Your task to perform on an android device: Open ESPN.com Image 0: 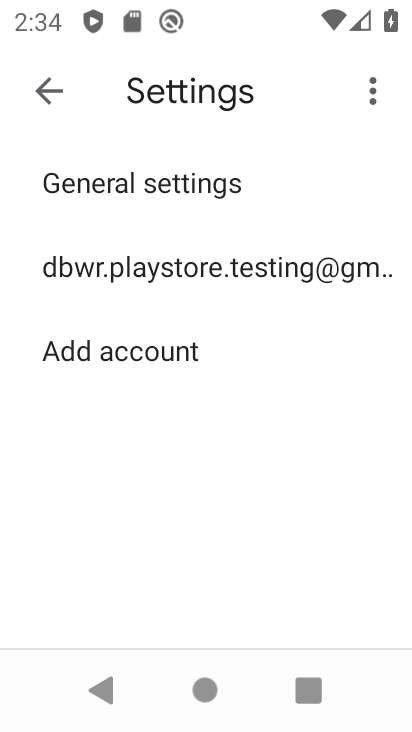
Step 0: press home button
Your task to perform on an android device: Open ESPN.com Image 1: 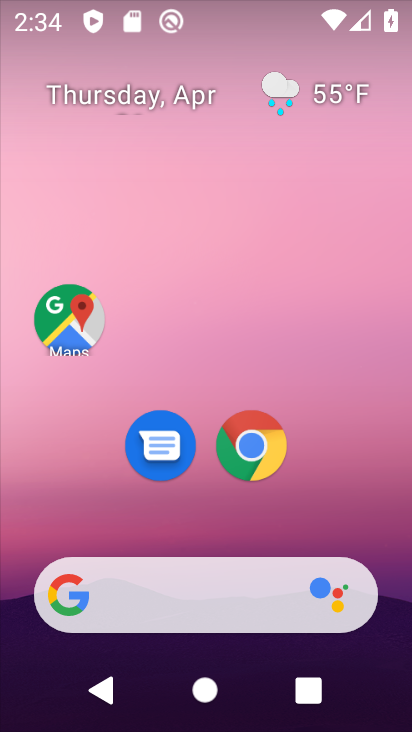
Step 1: click (246, 440)
Your task to perform on an android device: Open ESPN.com Image 2: 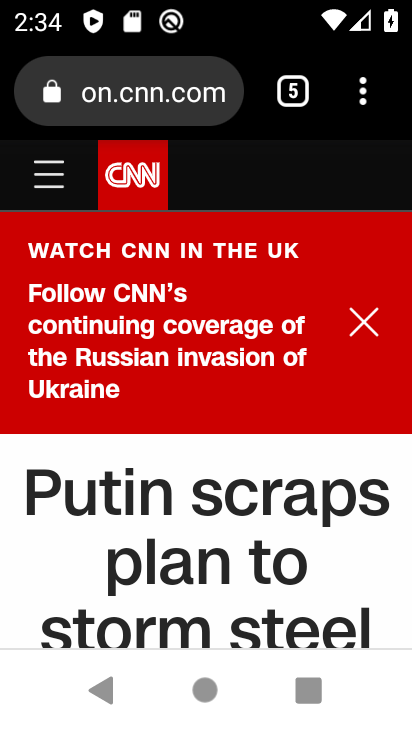
Step 2: drag from (359, 93) to (137, 290)
Your task to perform on an android device: Open ESPN.com Image 3: 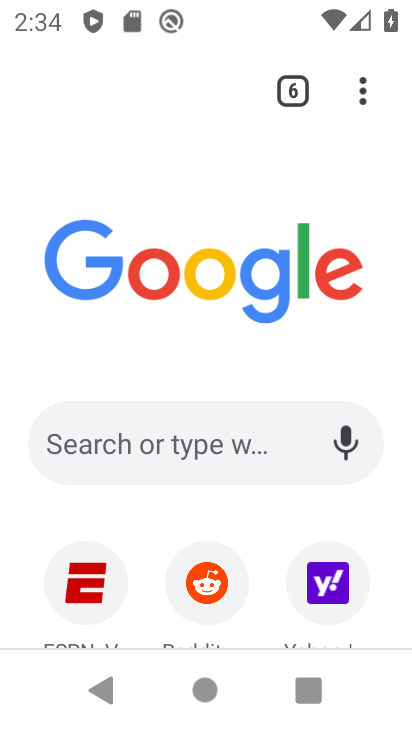
Step 3: click (184, 453)
Your task to perform on an android device: Open ESPN.com Image 4: 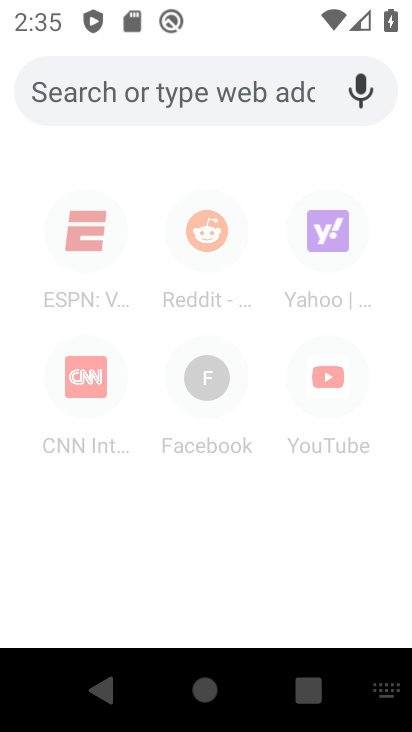
Step 4: type "ESPN.com"
Your task to perform on an android device: Open ESPN.com Image 5: 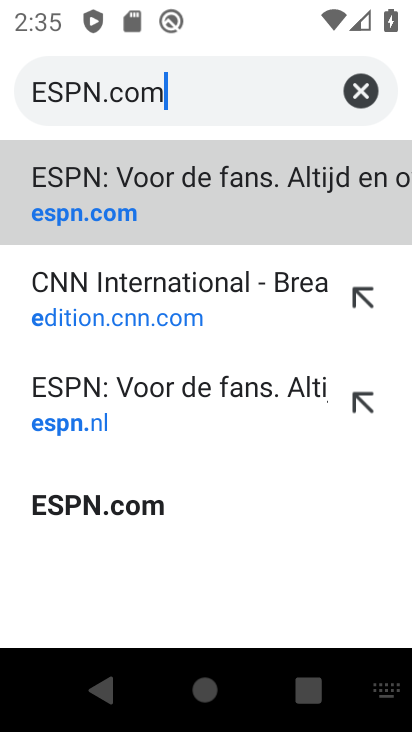
Step 5: type ""
Your task to perform on an android device: Open ESPN.com Image 6: 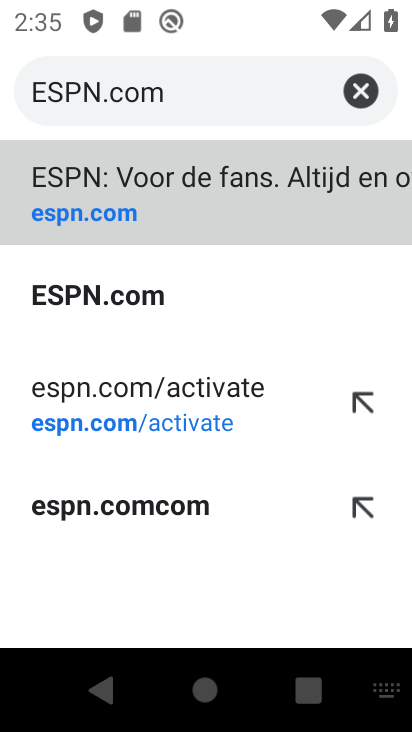
Step 6: click (116, 185)
Your task to perform on an android device: Open ESPN.com Image 7: 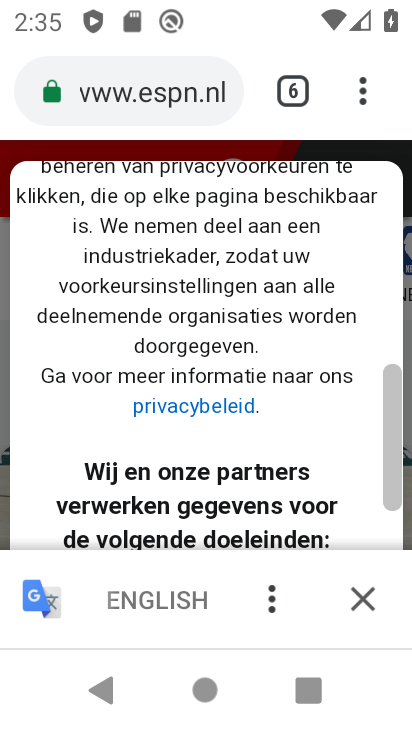
Step 7: drag from (269, 477) to (239, 168)
Your task to perform on an android device: Open ESPN.com Image 8: 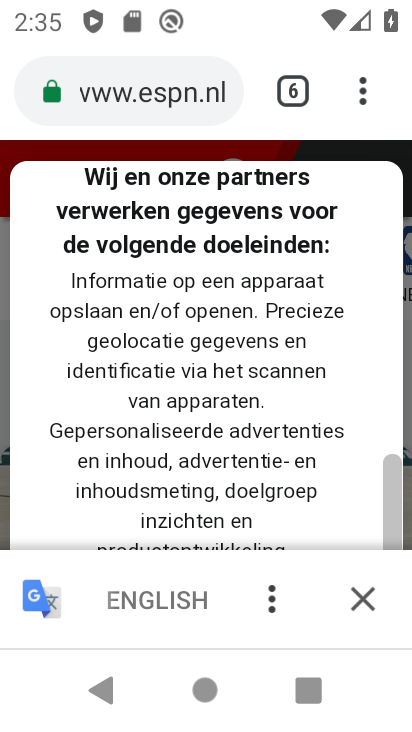
Step 8: drag from (244, 520) to (252, 187)
Your task to perform on an android device: Open ESPN.com Image 9: 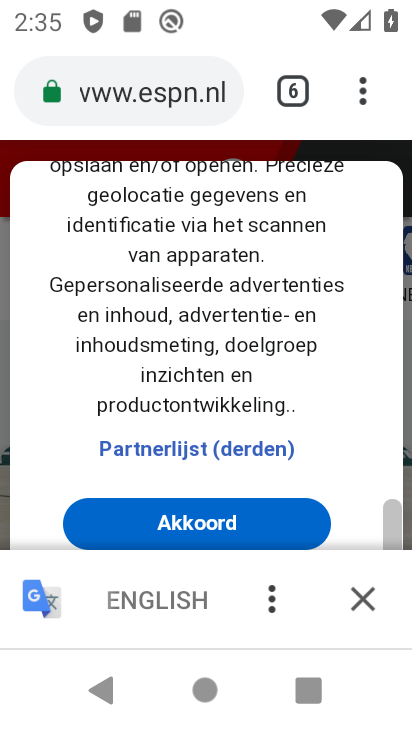
Step 9: click (212, 522)
Your task to perform on an android device: Open ESPN.com Image 10: 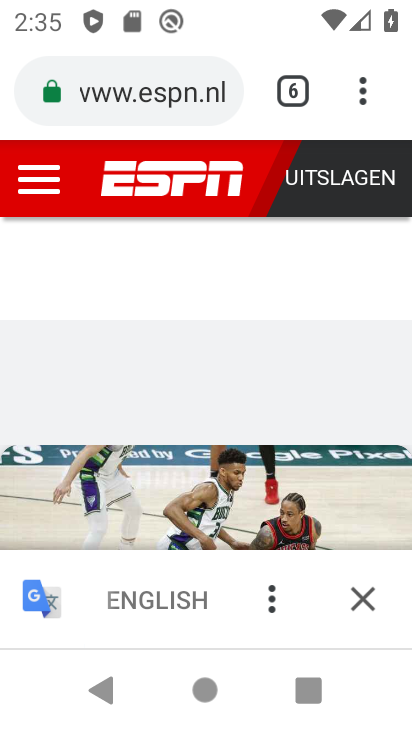
Step 10: task complete